Your task to perform on an android device: change the clock style Image 0: 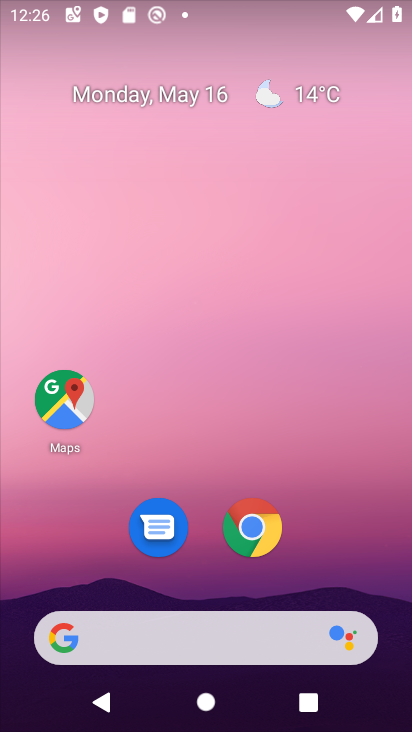
Step 0: drag from (297, 586) to (317, 149)
Your task to perform on an android device: change the clock style Image 1: 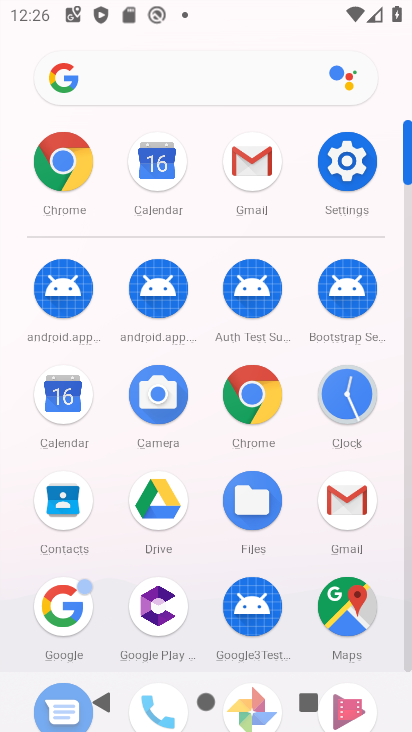
Step 1: click (359, 406)
Your task to perform on an android device: change the clock style Image 2: 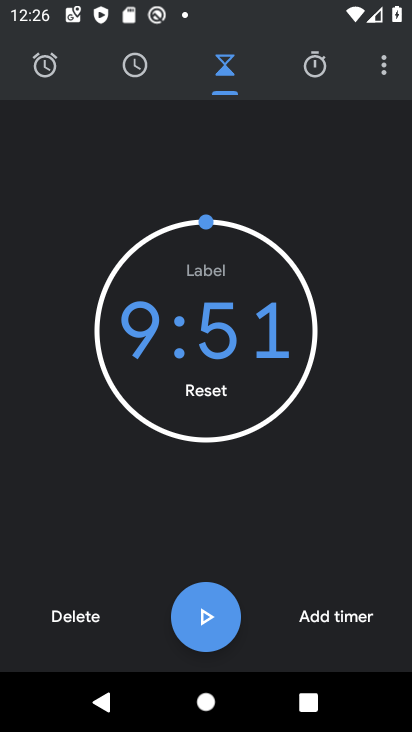
Step 2: click (387, 72)
Your task to perform on an android device: change the clock style Image 3: 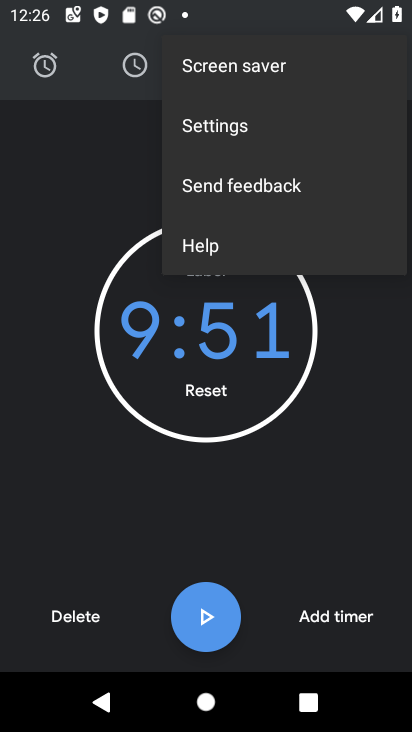
Step 3: click (232, 129)
Your task to perform on an android device: change the clock style Image 4: 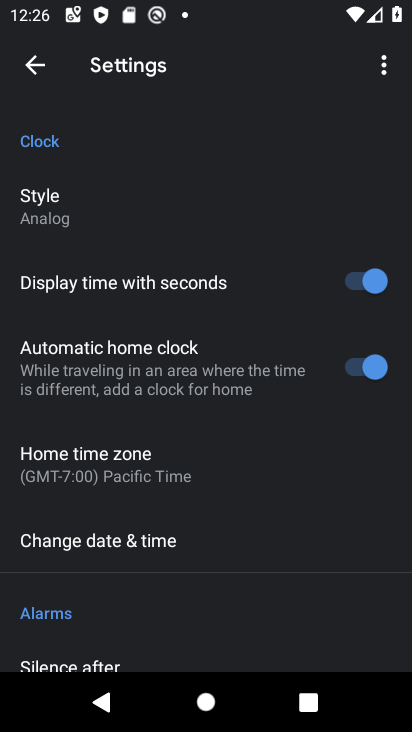
Step 4: click (96, 221)
Your task to perform on an android device: change the clock style Image 5: 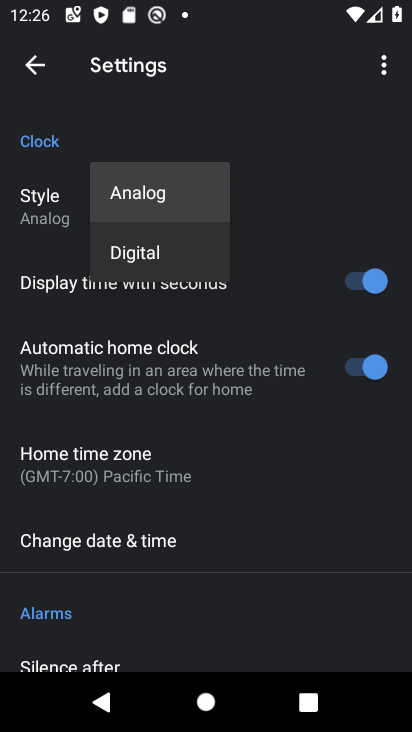
Step 5: click (122, 258)
Your task to perform on an android device: change the clock style Image 6: 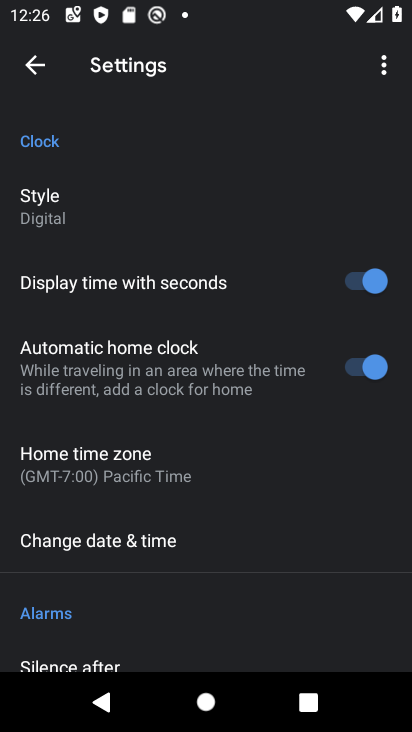
Step 6: task complete